Your task to perform on an android device: toggle sleep mode Image 0: 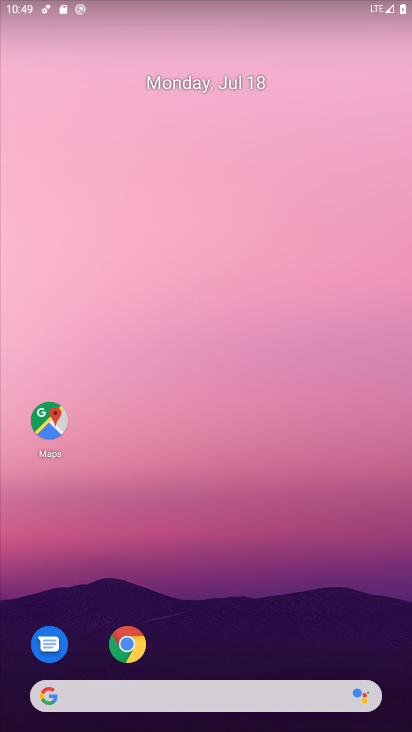
Step 0: drag from (342, 613) to (381, 86)
Your task to perform on an android device: toggle sleep mode Image 1: 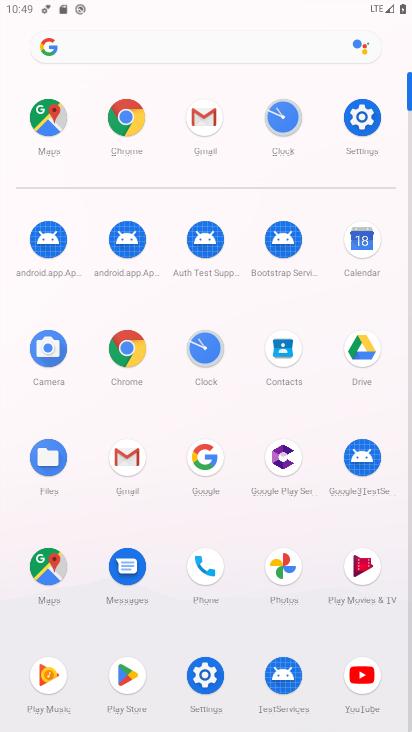
Step 1: click (362, 122)
Your task to perform on an android device: toggle sleep mode Image 2: 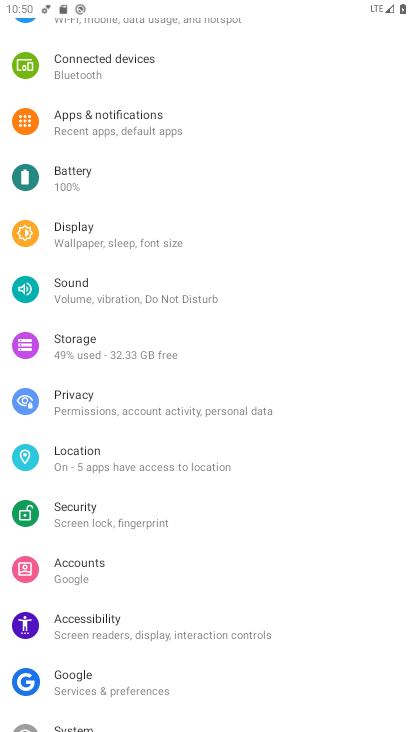
Step 2: drag from (332, 405) to (335, 301)
Your task to perform on an android device: toggle sleep mode Image 3: 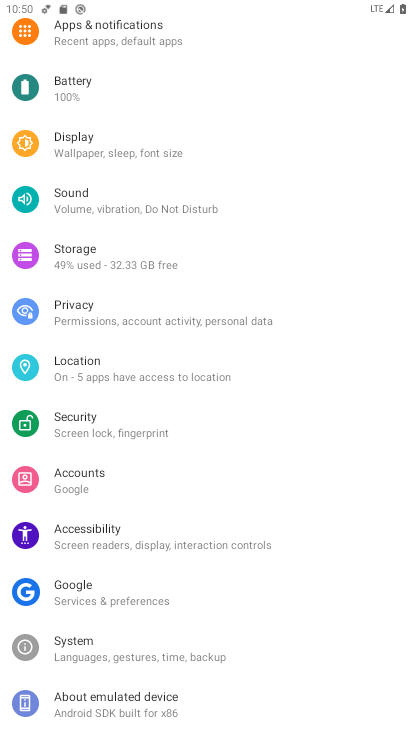
Step 3: drag from (321, 420) to (329, 333)
Your task to perform on an android device: toggle sleep mode Image 4: 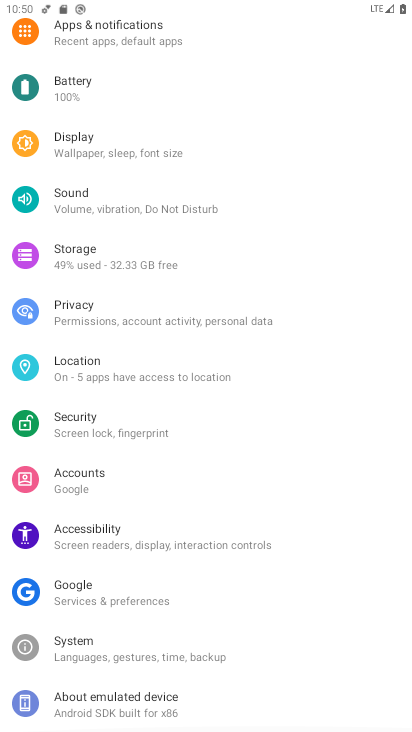
Step 4: drag from (341, 274) to (331, 339)
Your task to perform on an android device: toggle sleep mode Image 5: 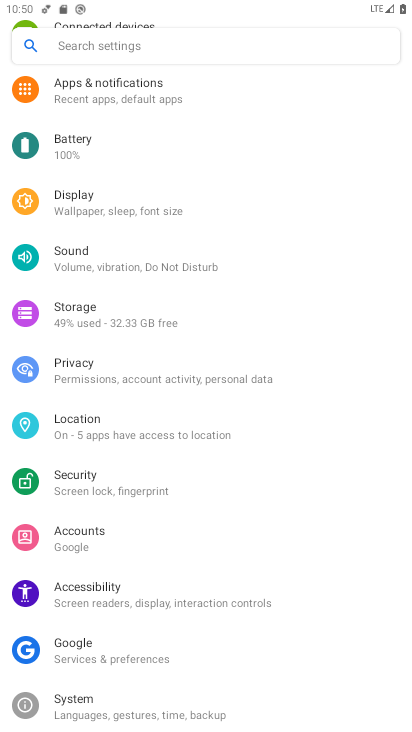
Step 5: drag from (328, 268) to (315, 359)
Your task to perform on an android device: toggle sleep mode Image 6: 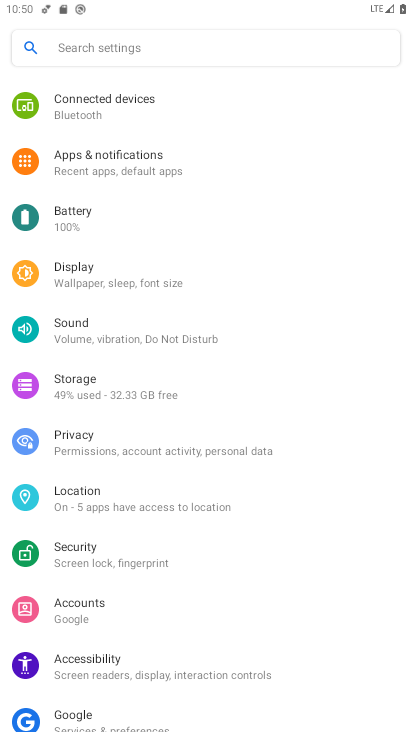
Step 6: drag from (312, 227) to (311, 331)
Your task to perform on an android device: toggle sleep mode Image 7: 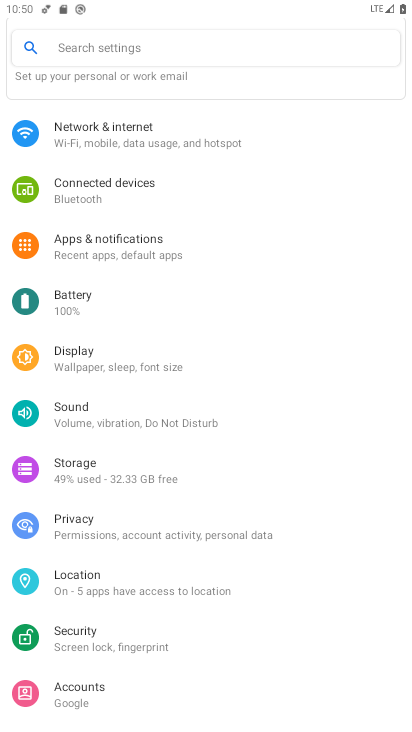
Step 7: drag from (324, 210) to (322, 348)
Your task to perform on an android device: toggle sleep mode Image 8: 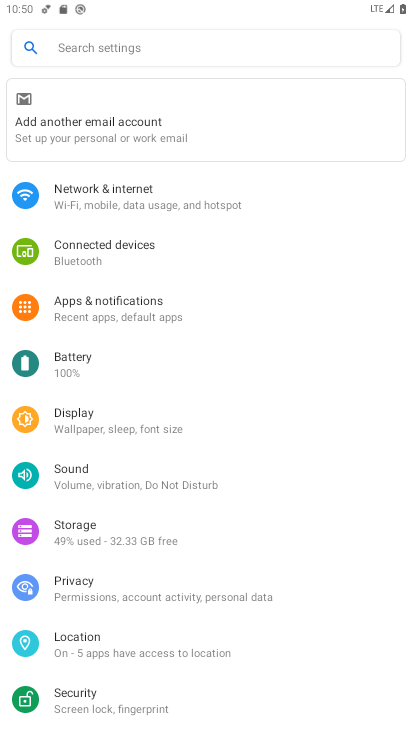
Step 8: click (235, 432)
Your task to perform on an android device: toggle sleep mode Image 9: 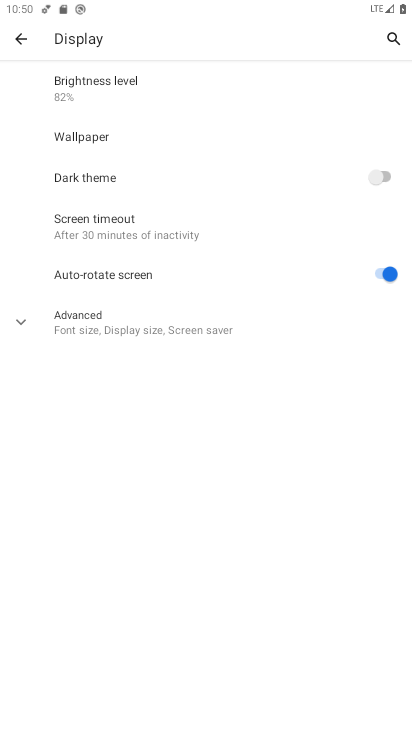
Step 9: click (239, 327)
Your task to perform on an android device: toggle sleep mode Image 10: 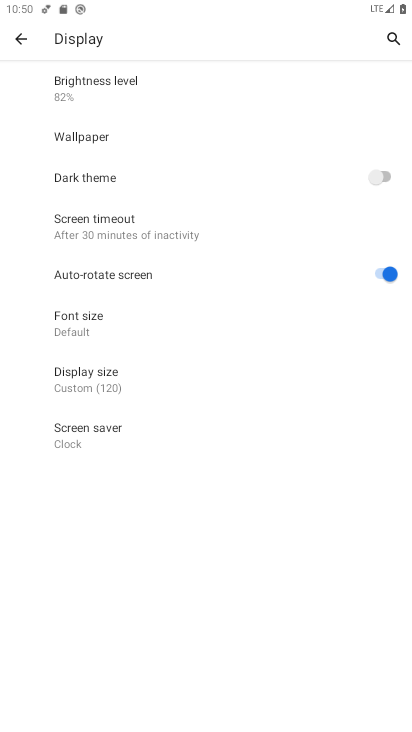
Step 10: task complete